Your task to perform on an android device: Go to notification settings Image 0: 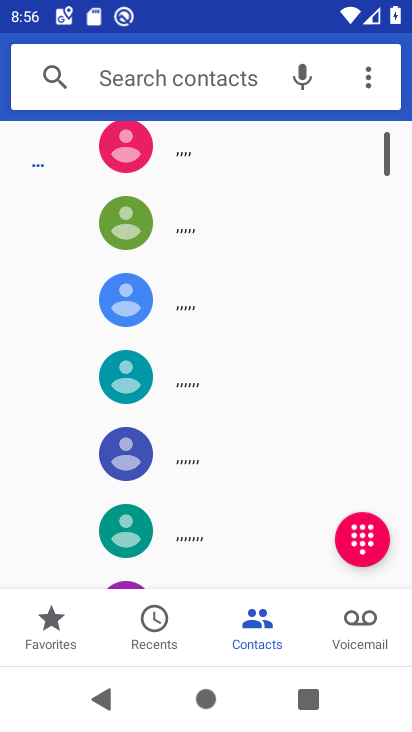
Step 0: press home button
Your task to perform on an android device: Go to notification settings Image 1: 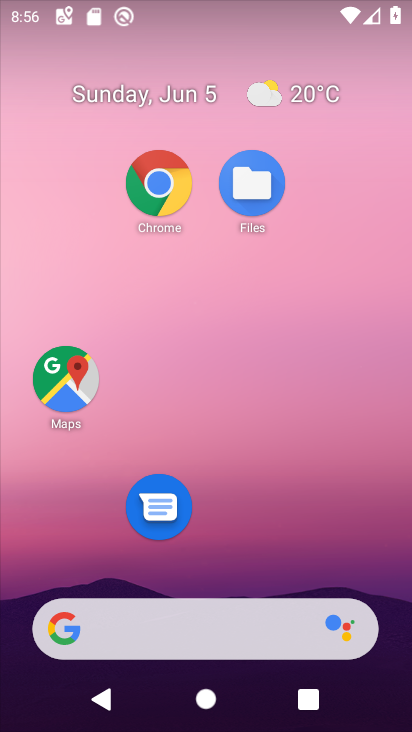
Step 1: drag from (229, 585) to (182, 60)
Your task to perform on an android device: Go to notification settings Image 2: 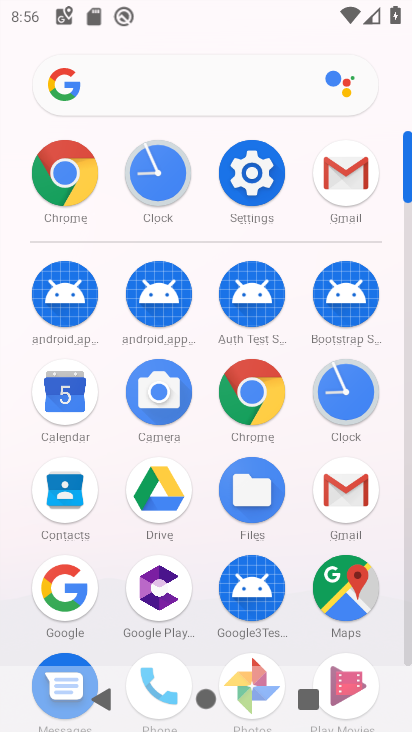
Step 2: click (267, 197)
Your task to perform on an android device: Go to notification settings Image 3: 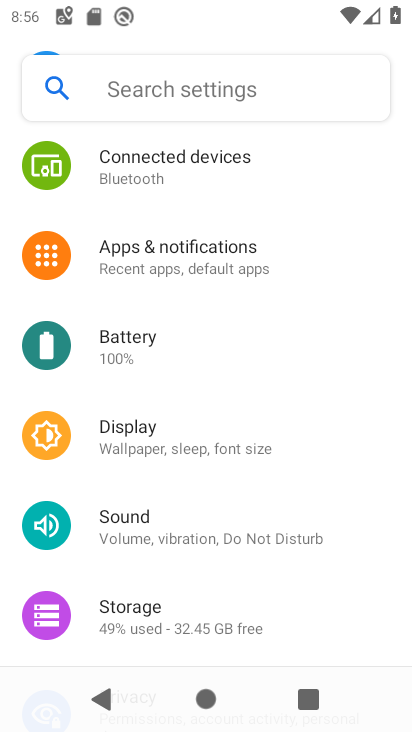
Step 3: click (264, 257)
Your task to perform on an android device: Go to notification settings Image 4: 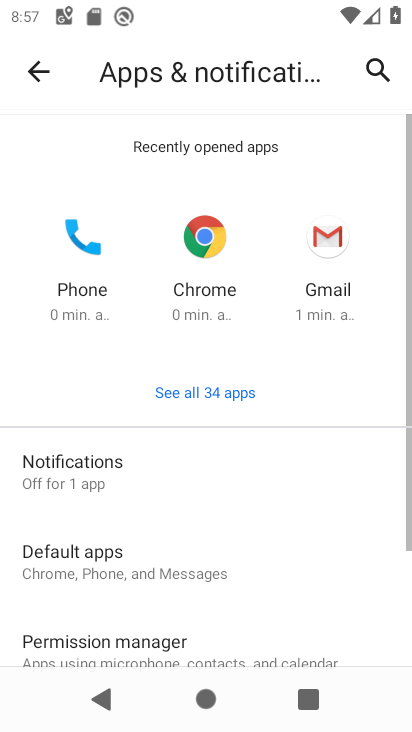
Step 4: click (90, 449)
Your task to perform on an android device: Go to notification settings Image 5: 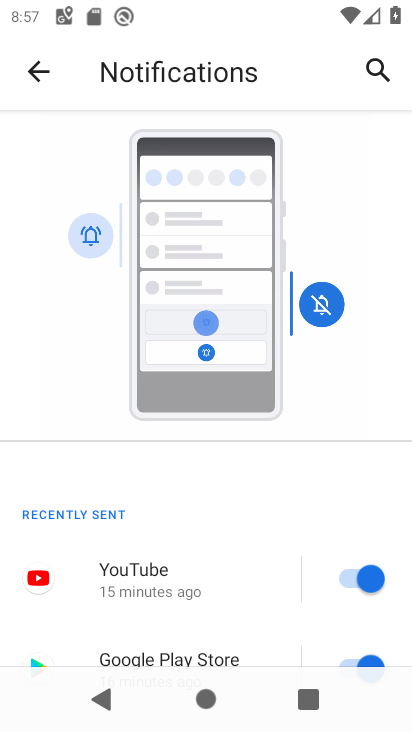
Step 5: task complete